Your task to perform on an android device: Search for logitech g pro on amazon.com, select the first entry, add it to the cart, then select checkout. Image 0: 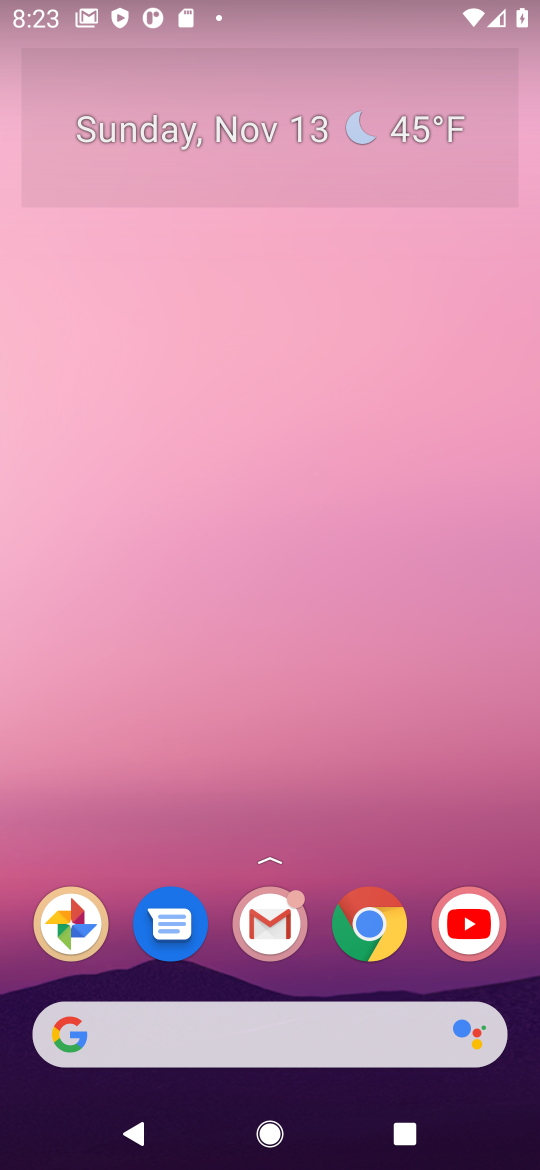
Step 0: press home button
Your task to perform on an android device: Search for logitech g pro on amazon.com, select the first entry, add it to the cart, then select checkout. Image 1: 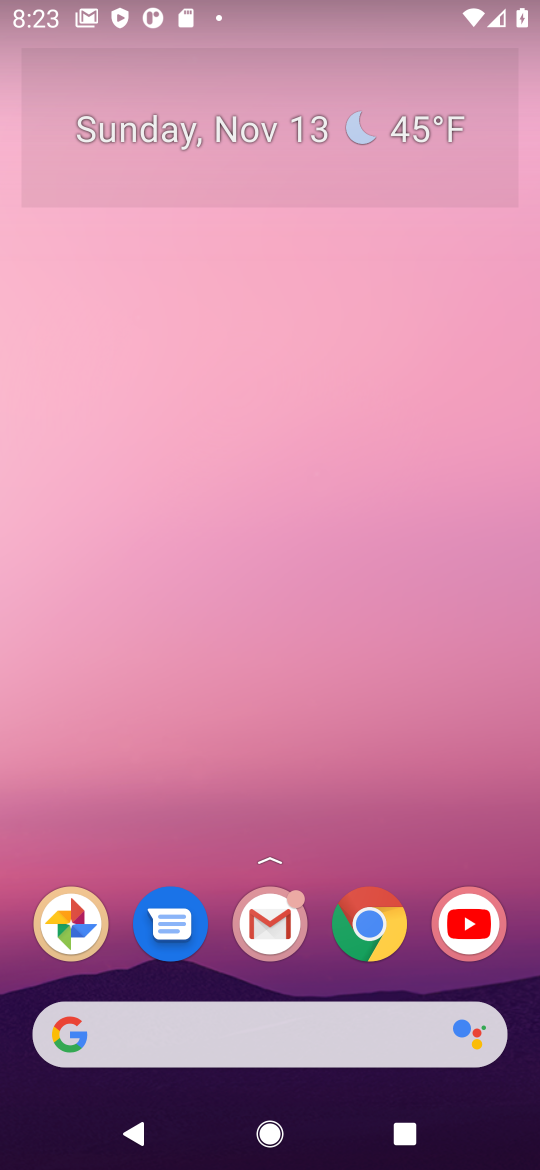
Step 1: click (374, 917)
Your task to perform on an android device: Search for logitech g pro on amazon.com, select the first entry, add it to the cart, then select checkout. Image 2: 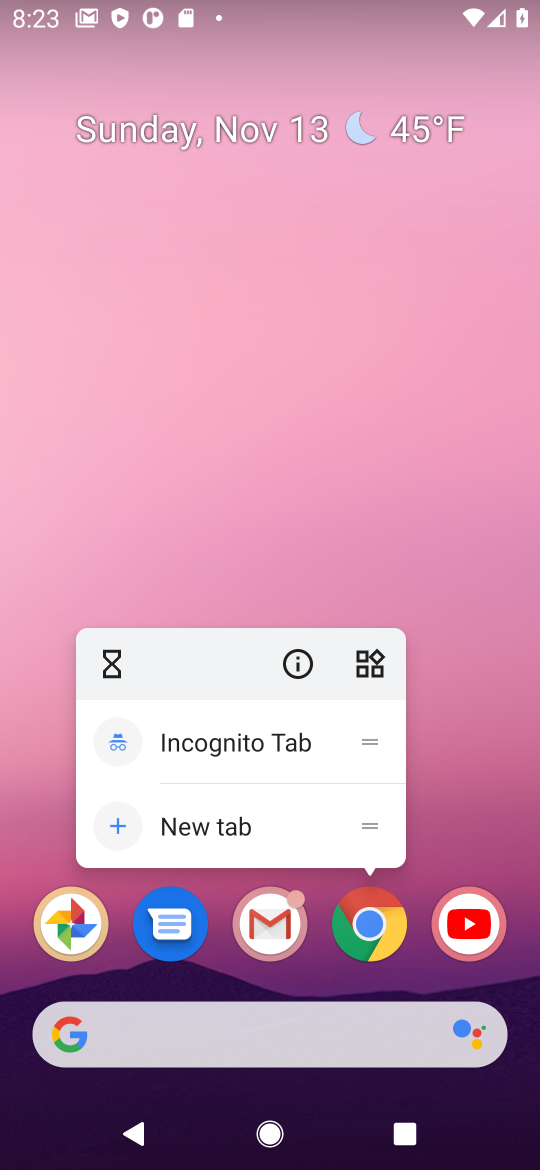
Step 2: click (374, 917)
Your task to perform on an android device: Search for logitech g pro on amazon.com, select the first entry, add it to the cart, then select checkout. Image 3: 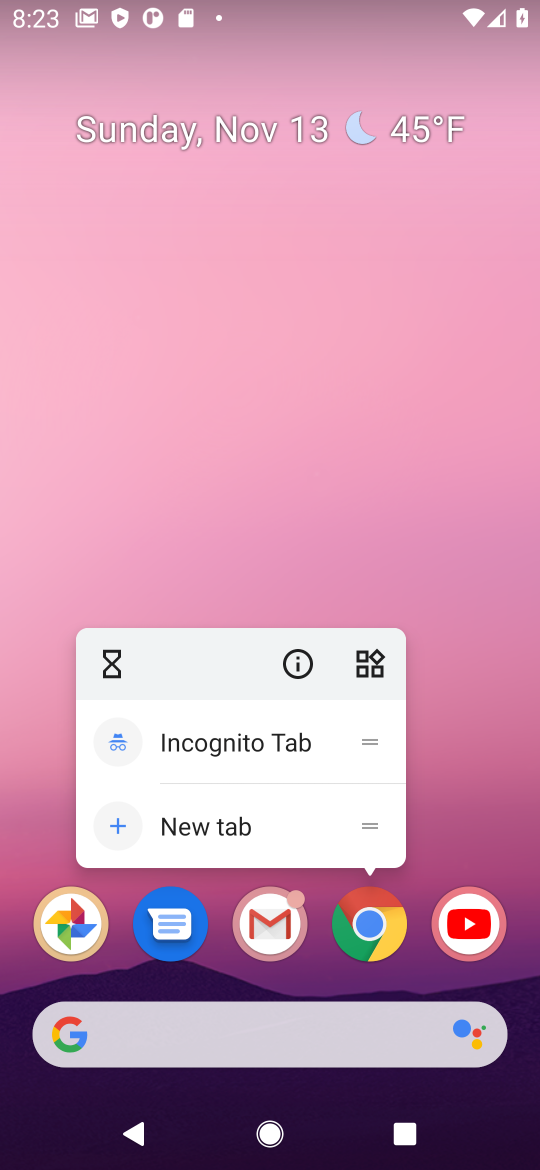
Step 3: click (374, 917)
Your task to perform on an android device: Search for logitech g pro on amazon.com, select the first entry, add it to the cart, then select checkout. Image 4: 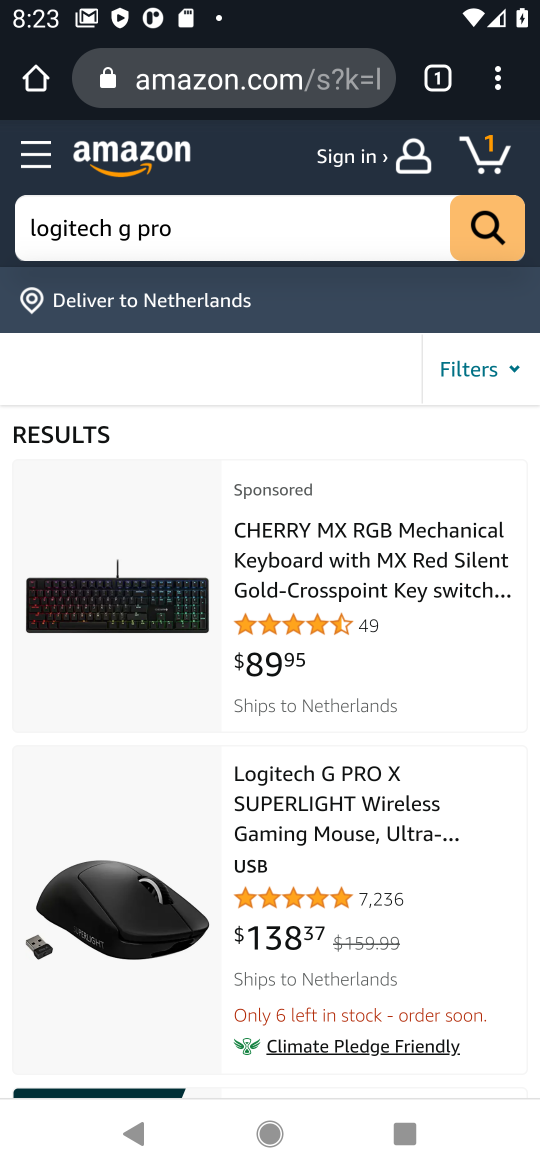
Step 4: task complete